Your task to perform on an android device: Open the web browser Image 0: 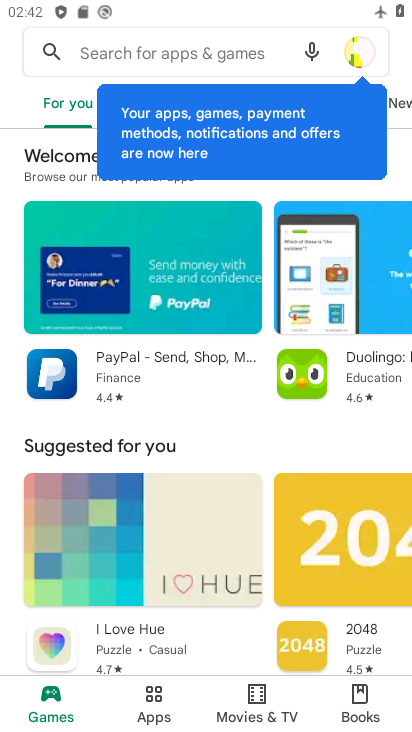
Step 0: press home button
Your task to perform on an android device: Open the web browser Image 1: 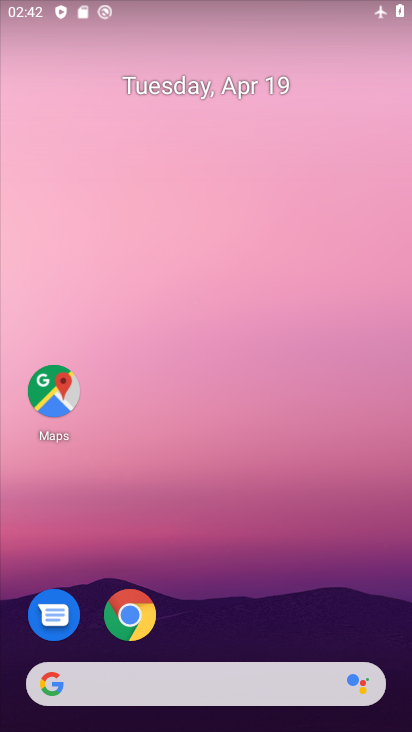
Step 1: drag from (196, 419) to (195, 289)
Your task to perform on an android device: Open the web browser Image 2: 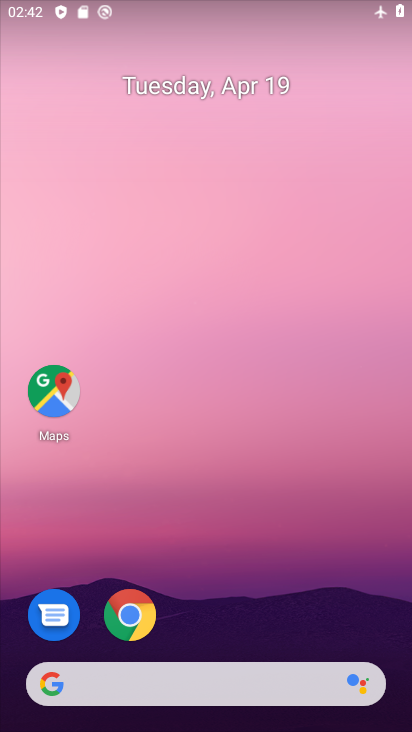
Step 2: click (125, 611)
Your task to perform on an android device: Open the web browser Image 3: 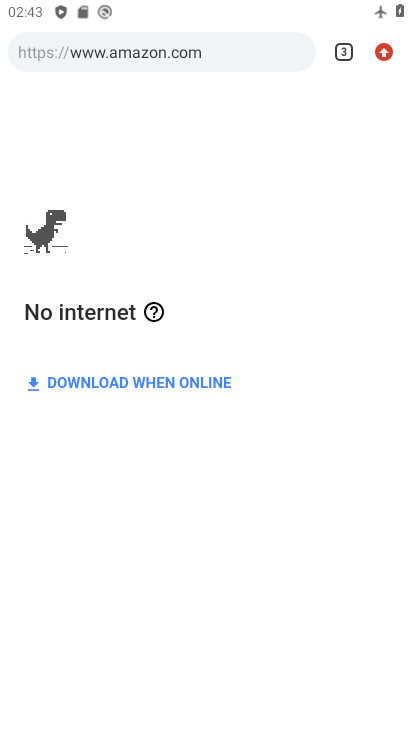
Step 3: task complete